Your task to perform on an android device: add a contact Image 0: 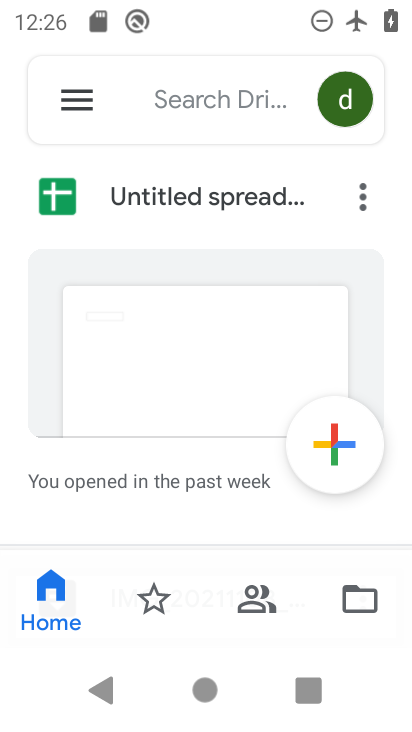
Step 0: press back button
Your task to perform on an android device: add a contact Image 1: 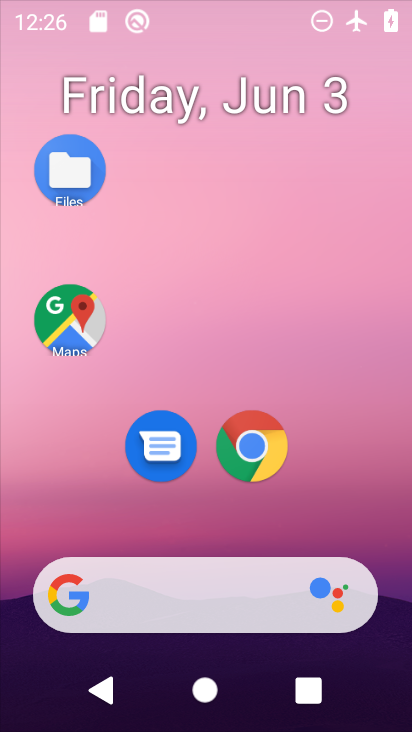
Step 1: press home button
Your task to perform on an android device: add a contact Image 2: 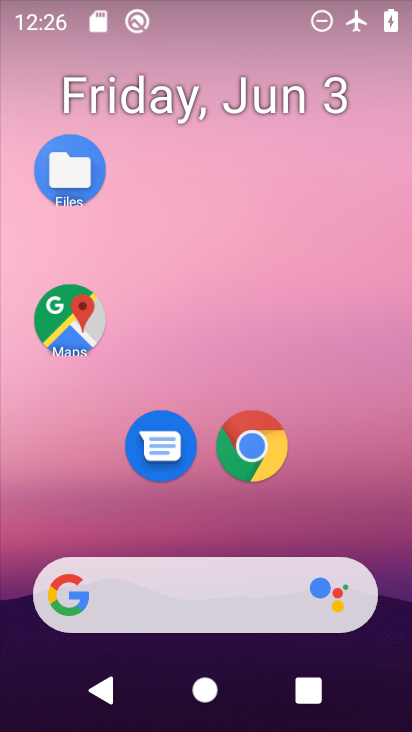
Step 2: drag from (239, 626) to (248, 179)
Your task to perform on an android device: add a contact Image 3: 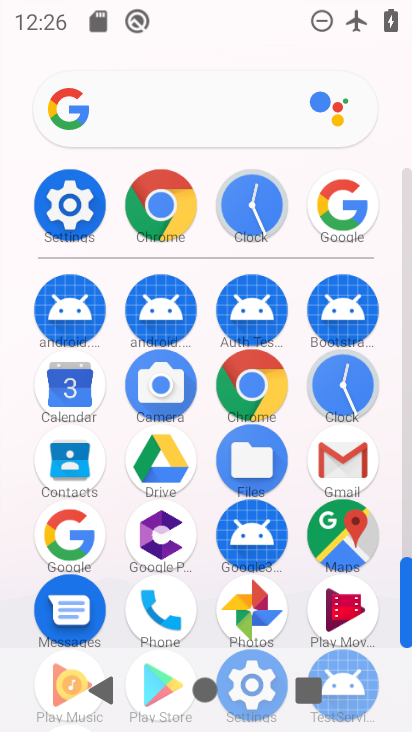
Step 3: click (63, 459)
Your task to perform on an android device: add a contact Image 4: 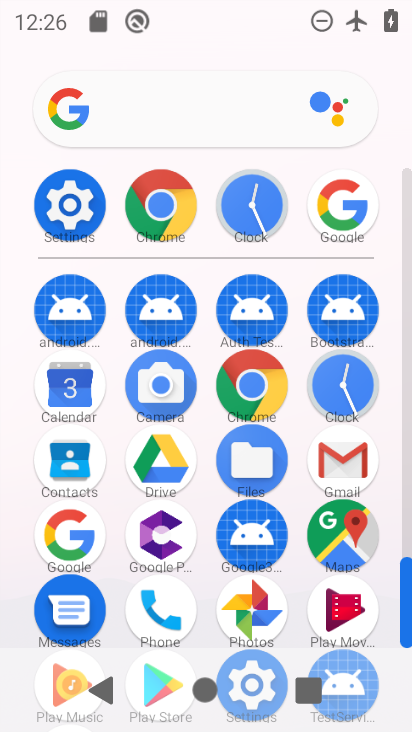
Step 4: click (63, 458)
Your task to perform on an android device: add a contact Image 5: 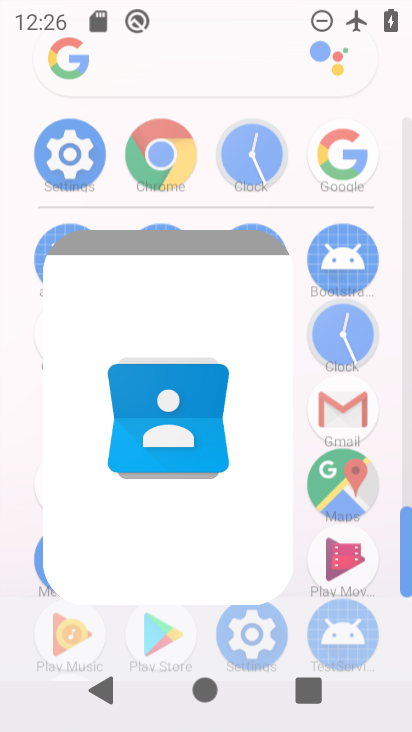
Step 5: click (62, 456)
Your task to perform on an android device: add a contact Image 6: 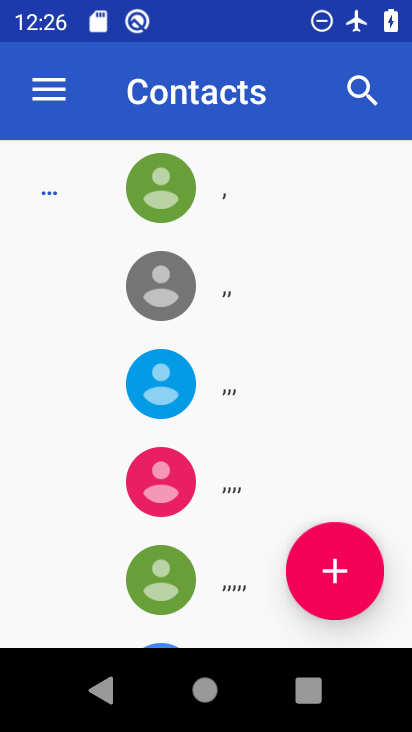
Step 6: click (326, 553)
Your task to perform on an android device: add a contact Image 7: 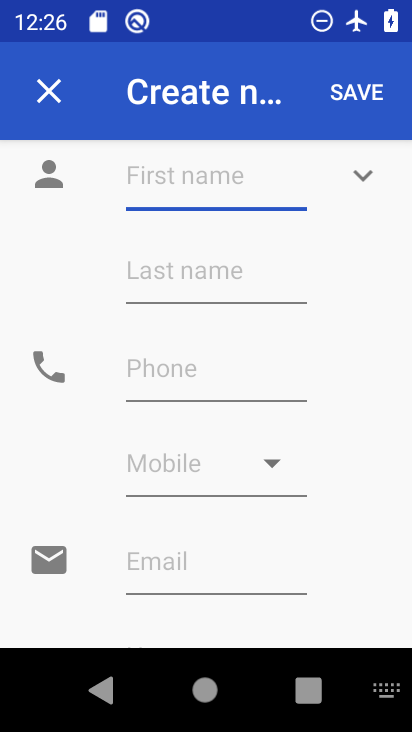
Step 7: type " nxzbzmnzxbmn"
Your task to perform on an android device: add a contact Image 8: 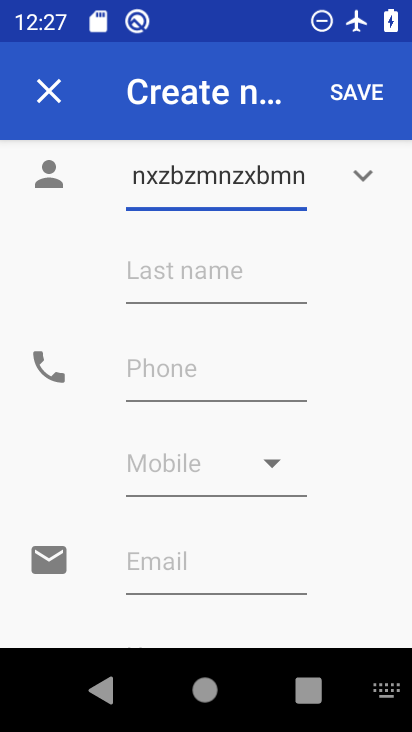
Step 8: click (135, 362)
Your task to perform on an android device: add a contact Image 9: 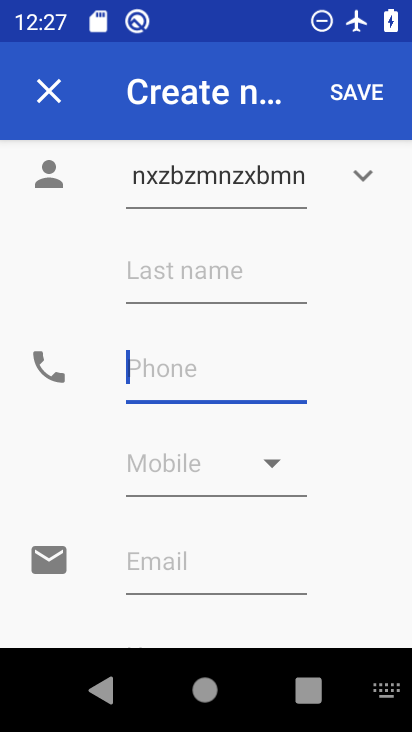
Step 9: click (135, 362)
Your task to perform on an android device: add a contact Image 10: 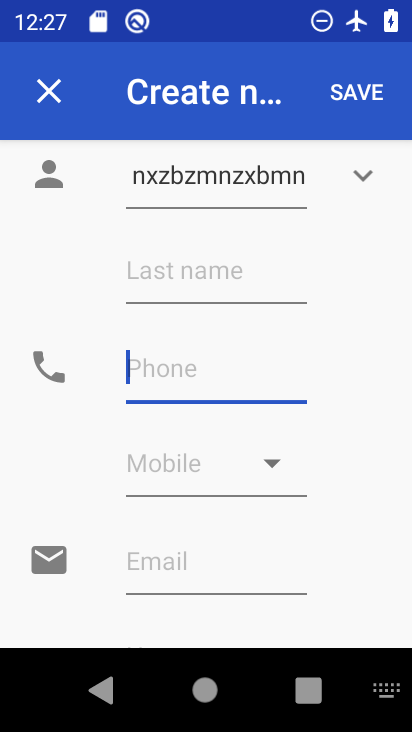
Step 10: click (135, 362)
Your task to perform on an android device: add a contact Image 11: 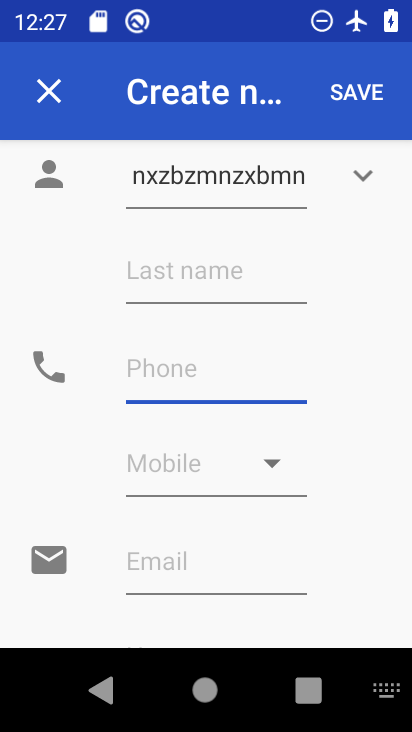
Step 11: click (135, 362)
Your task to perform on an android device: add a contact Image 12: 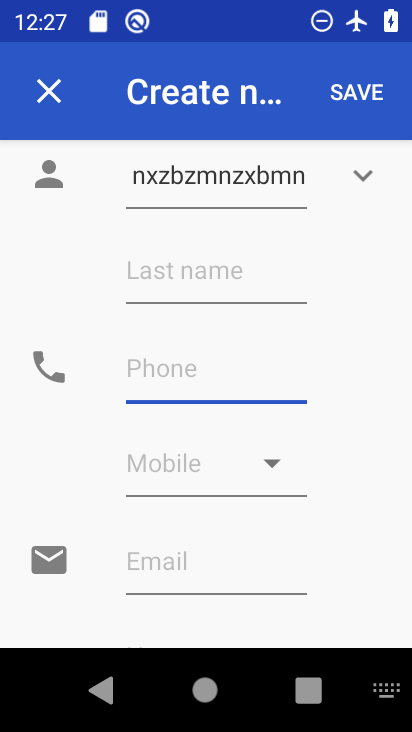
Step 12: click (135, 372)
Your task to perform on an android device: add a contact Image 13: 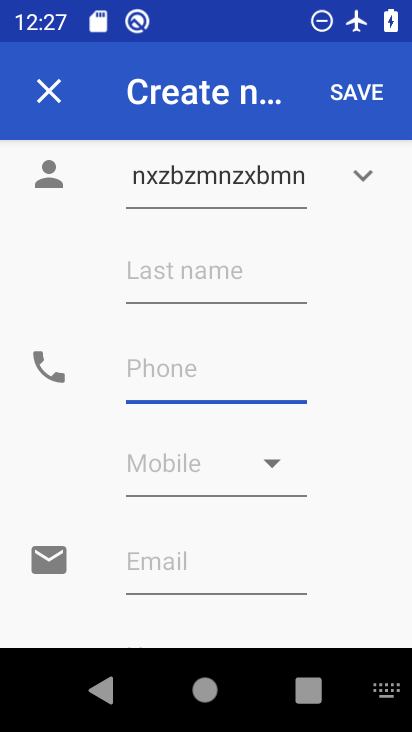
Step 13: type "7865987598347"
Your task to perform on an android device: add a contact Image 14: 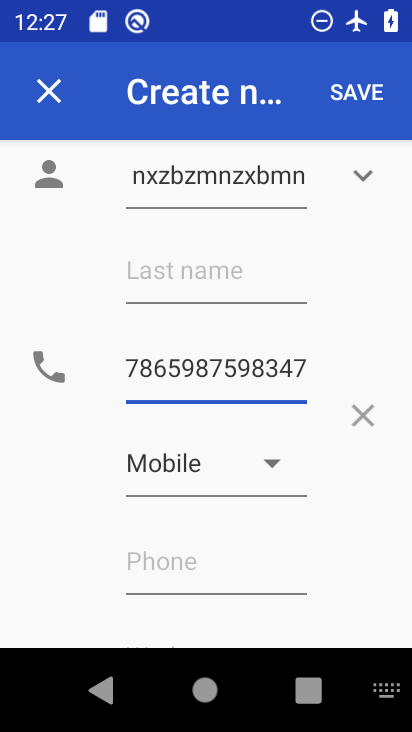
Step 14: click (353, 91)
Your task to perform on an android device: add a contact Image 15: 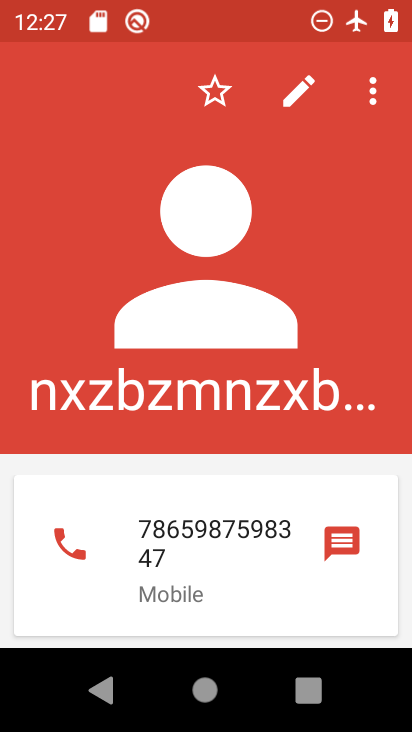
Step 15: task complete